Your task to perform on an android device: see creations saved in the google photos Image 0: 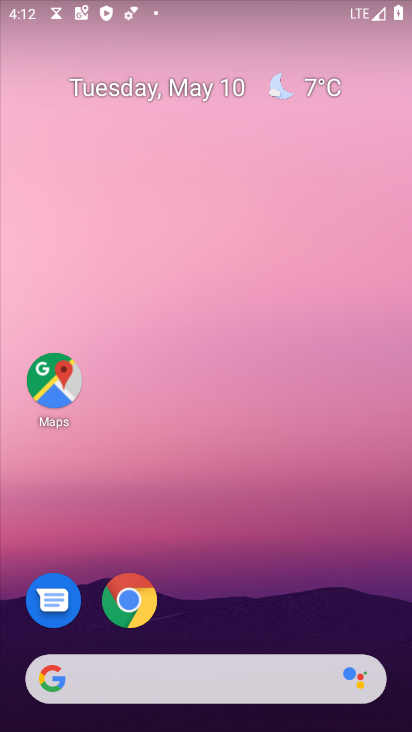
Step 0: drag from (295, 601) to (258, 8)
Your task to perform on an android device: see creations saved in the google photos Image 1: 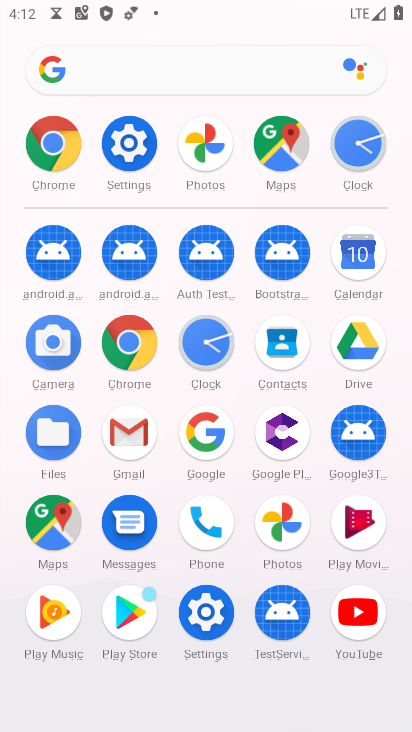
Step 1: click (214, 138)
Your task to perform on an android device: see creations saved in the google photos Image 2: 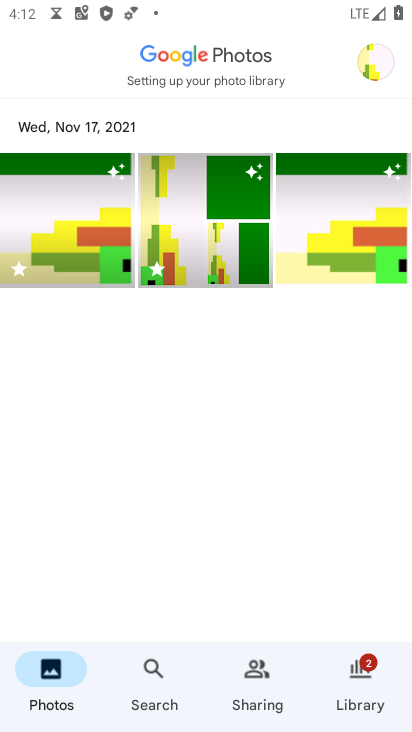
Step 2: task complete